Your task to perform on an android device: turn off javascript in the chrome app Image 0: 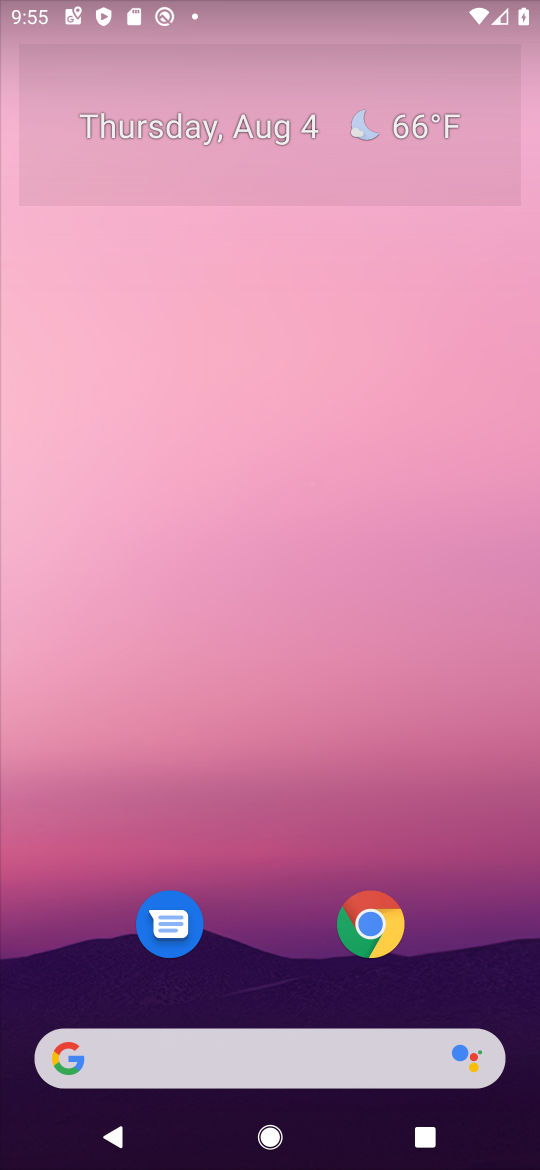
Step 0: click (374, 950)
Your task to perform on an android device: turn off javascript in the chrome app Image 1: 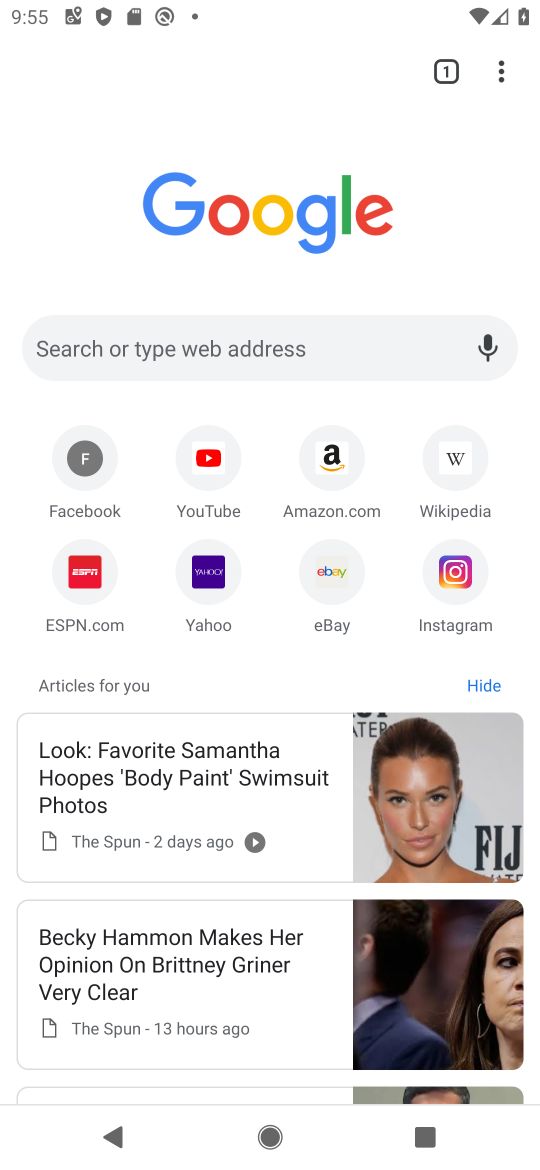
Step 1: click (497, 70)
Your task to perform on an android device: turn off javascript in the chrome app Image 2: 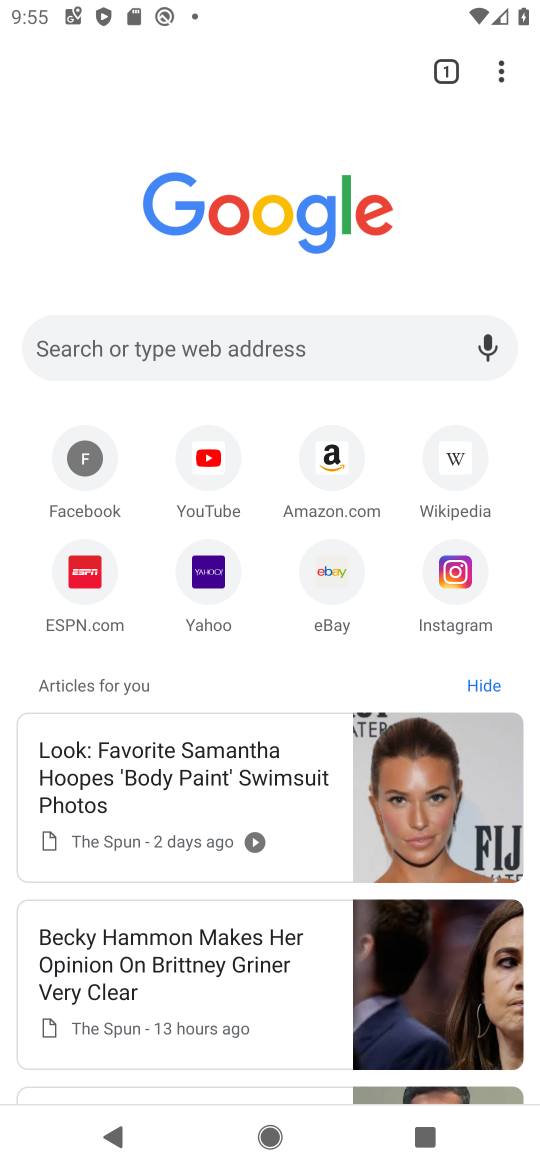
Step 2: click (501, 64)
Your task to perform on an android device: turn off javascript in the chrome app Image 3: 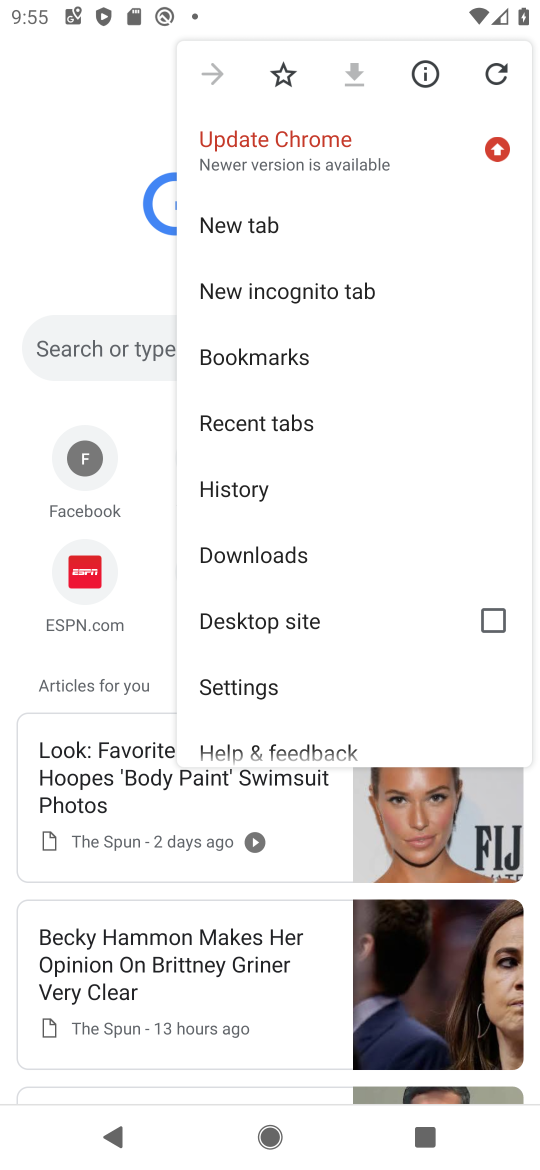
Step 3: click (284, 678)
Your task to perform on an android device: turn off javascript in the chrome app Image 4: 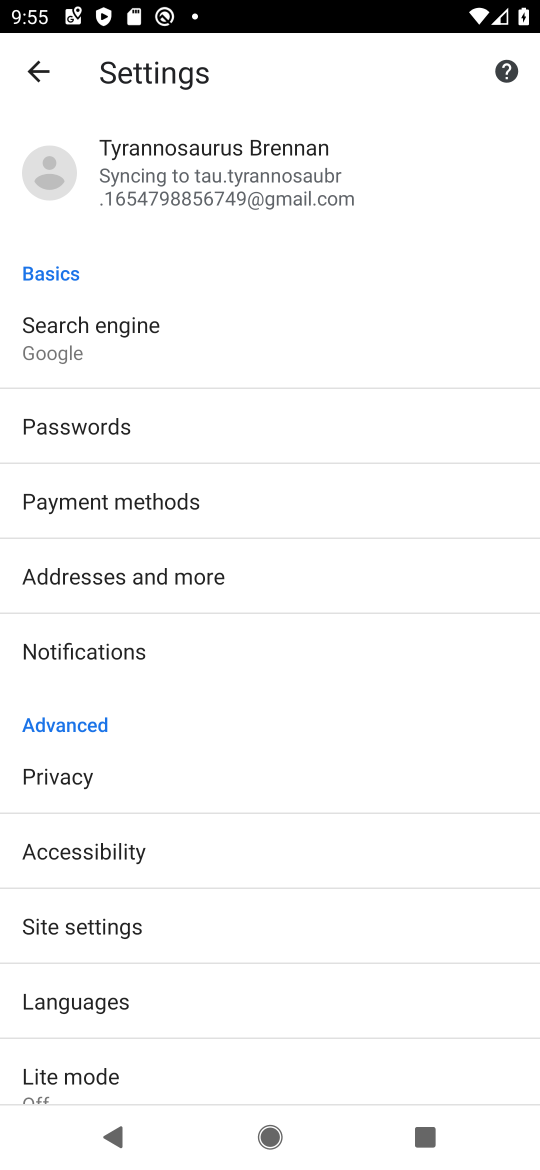
Step 4: task complete